Your task to perform on an android device: Go to accessibility settings Image 0: 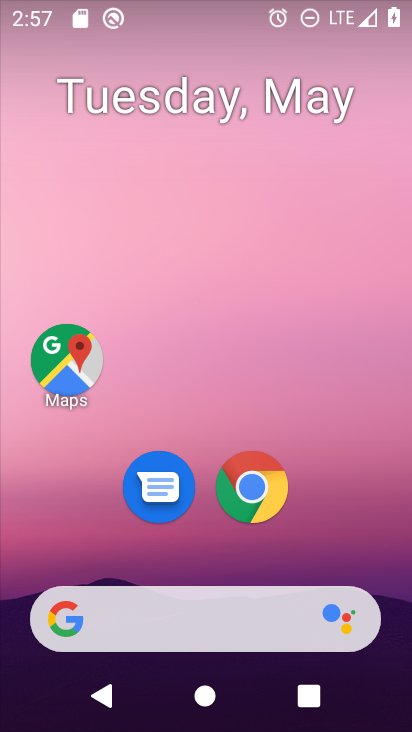
Step 0: drag from (67, 729) to (249, 74)
Your task to perform on an android device: Go to accessibility settings Image 1: 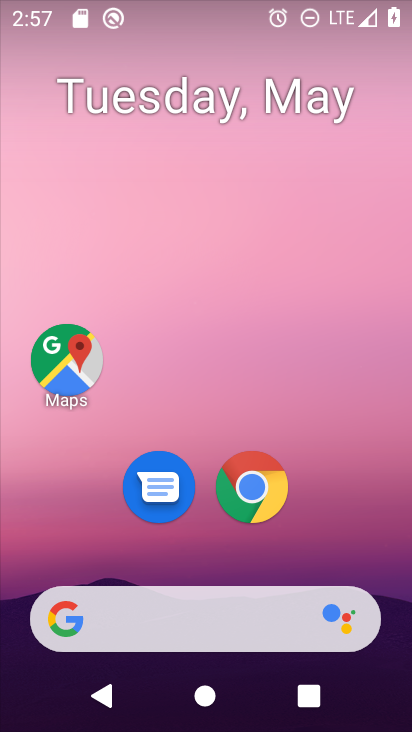
Step 1: drag from (10, 676) to (375, 128)
Your task to perform on an android device: Go to accessibility settings Image 2: 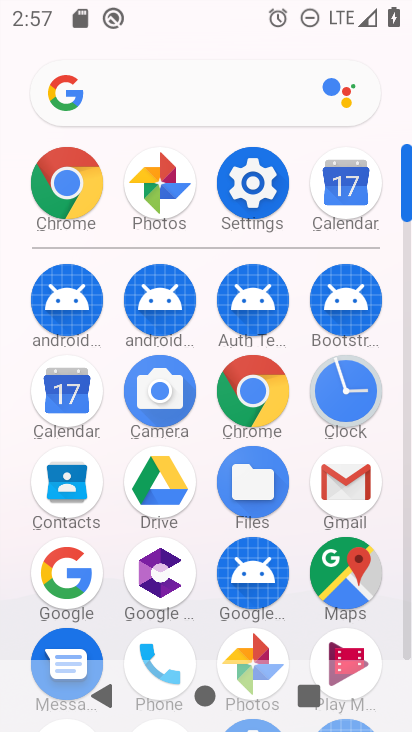
Step 2: click (239, 194)
Your task to perform on an android device: Go to accessibility settings Image 3: 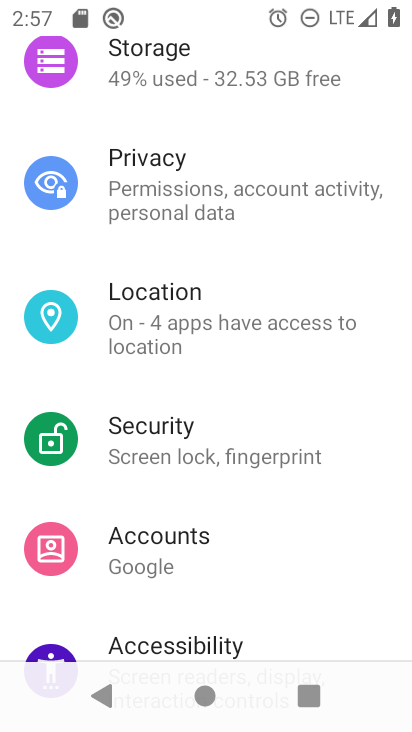
Step 3: click (172, 631)
Your task to perform on an android device: Go to accessibility settings Image 4: 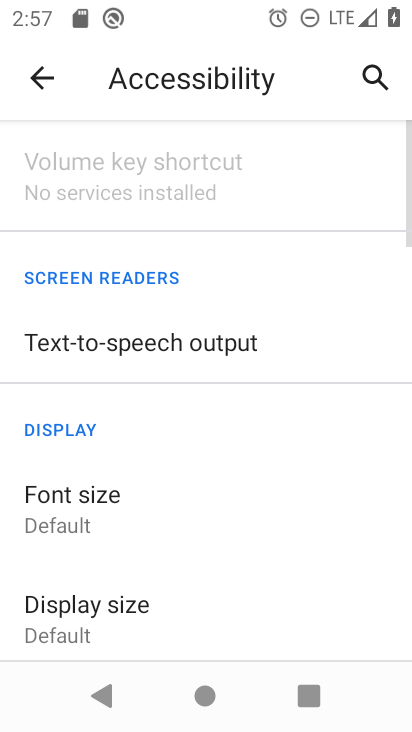
Step 4: task complete